Your task to perform on an android device: Open Google Chrome Image 0: 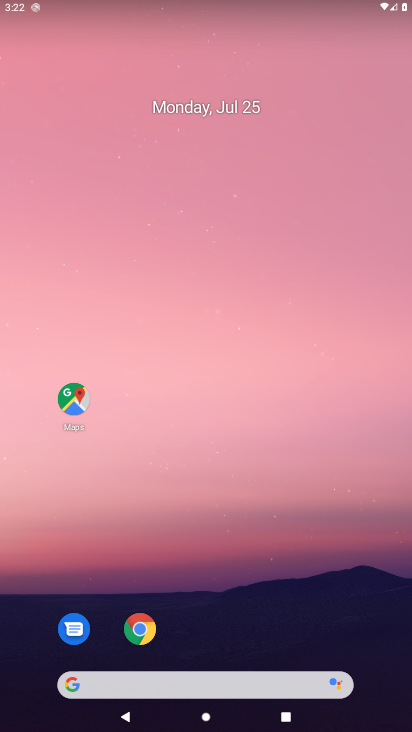
Step 0: click (137, 623)
Your task to perform on an android device: Open Google Chrome Image 1: 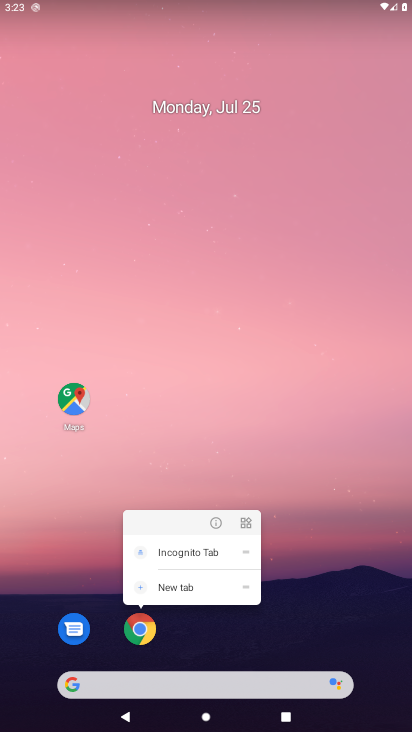
Step 1: click (126, 627)
Your task to perform on an android device: Open Google Chrome Image 2: 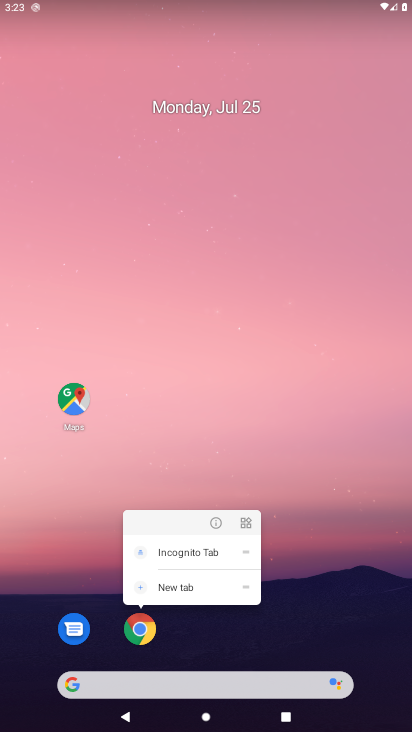
Step 2: click (151, 632)
Your task to perform on an android device: Open Google Chrome Image 3: 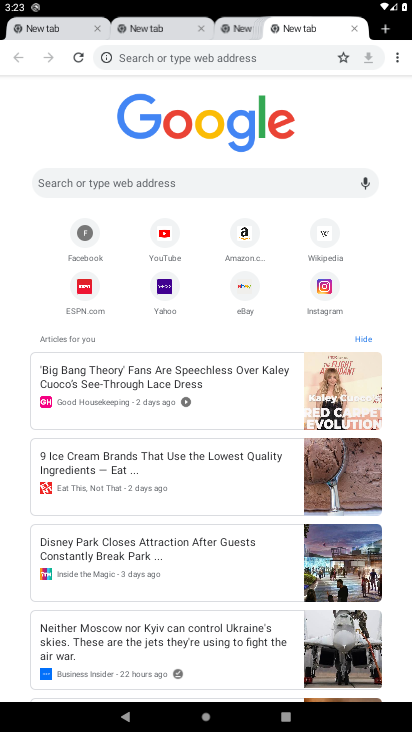
Step 3: task complete